Your task to perform on an android device: Show me the alarms in the clock app Image 0: 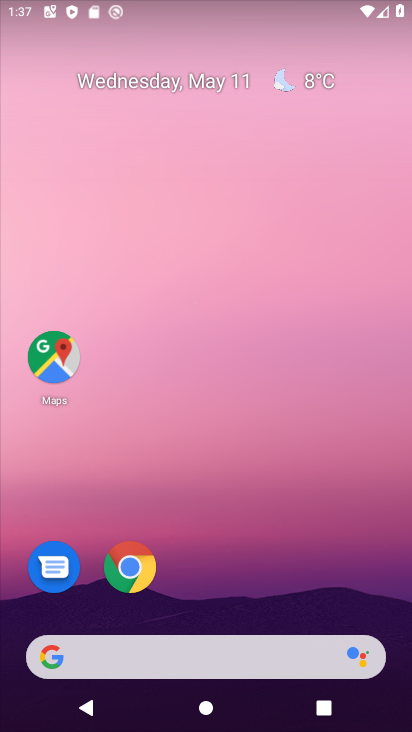
Step 0: drag from (361, 618) to (255, 225)
Your task to perform on an android device: Show me the alarms in the clock app Image 1: 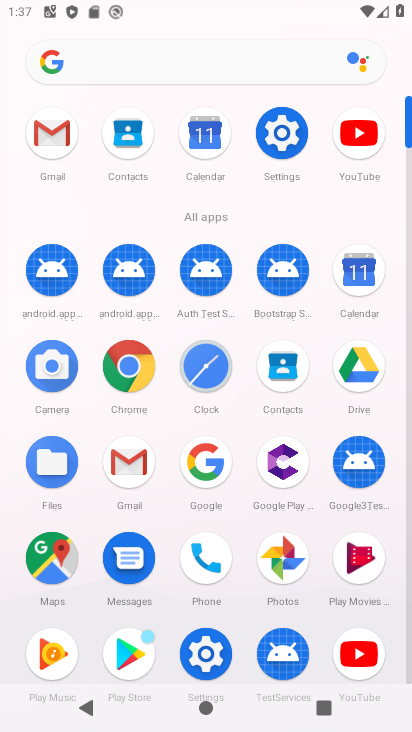
Step 1: click (219, 379)
Your task to perform on an android device: Show me the alarms in the clock app Image 2: 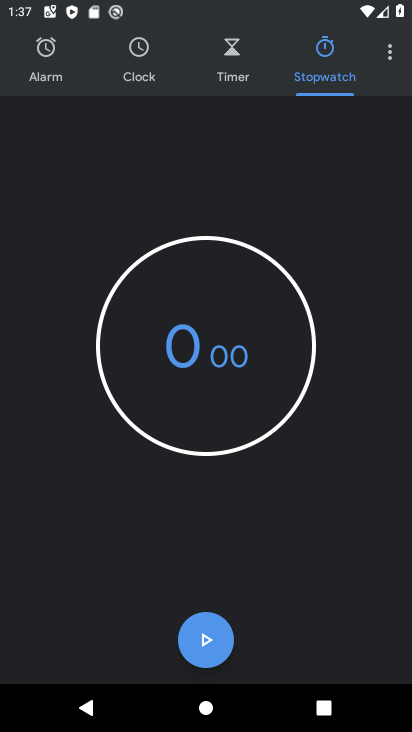
Step 2: click (381, 52)
Your task to perform on an android device: Show me the alarms in the clock app Image 3: 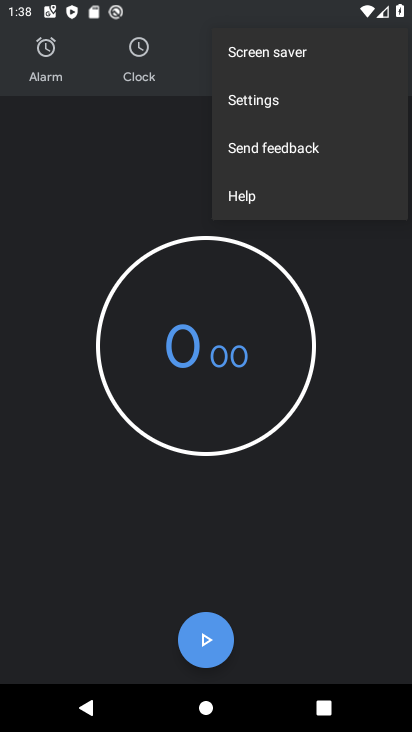
Step 3: click (43, 44)
Your task to perform on an android device: Show me the alarms in the clock app Image 4: 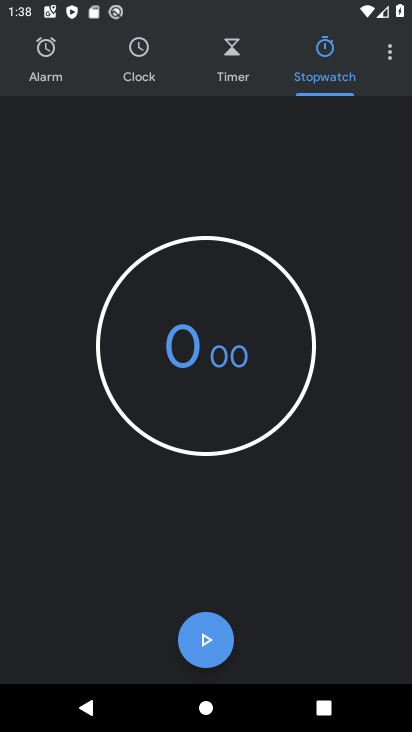
Step 4: click (43, 44)
Your task to perform on an android device: Show me the alarms in the clock app Image 5: 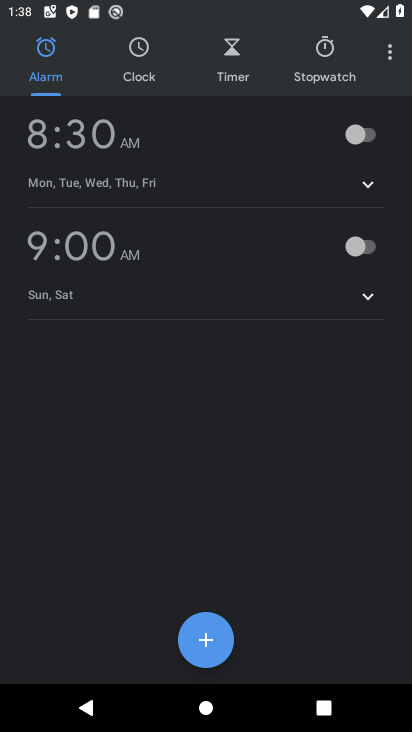
Step 5: task complete